Your task to perform on an android device: change the clock display to show seconds Image 0: 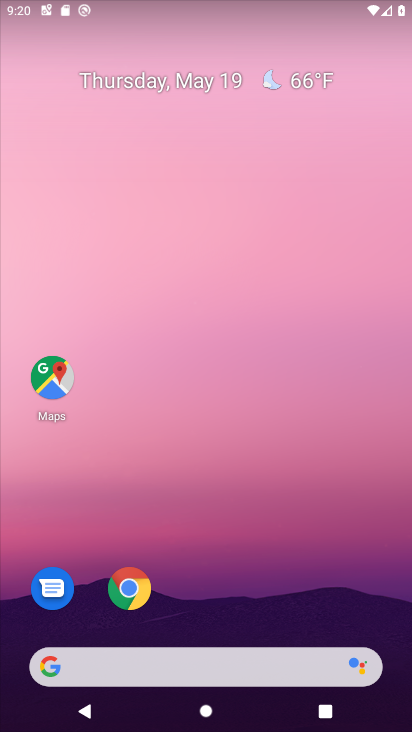
Step 0: drag from (378, 591) to (349, 315)
Your task to perform on an android device: change the clock display to show seconds Image 1: 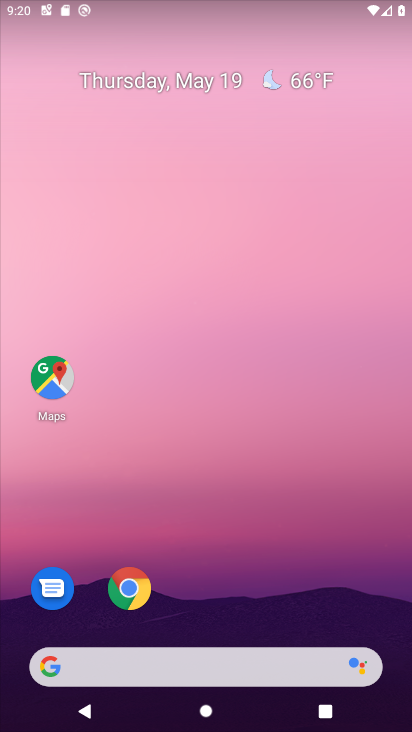
Step 1: drag from (384, 600) to (374, 81)
Your task to perform on an android device: change the clock display to show seconds Image 2: 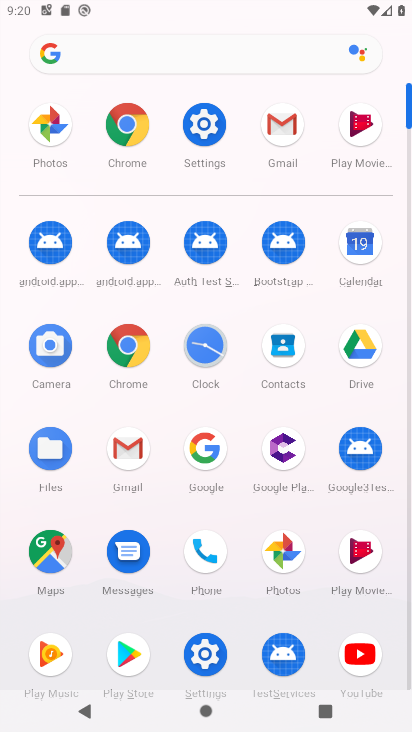
Step 2: click (195, 361)
Your task to perform on an android device: change the clock display to show seconds Image 3: 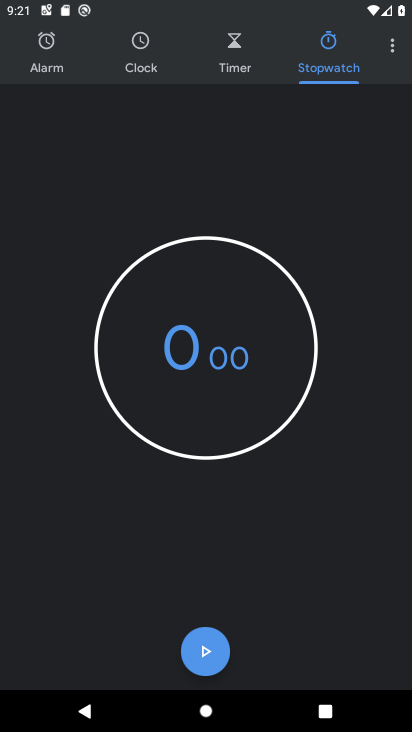
Step 3: click (396, 43)
Your task to perform on an android device: change the clock display to show seconds Image 4: 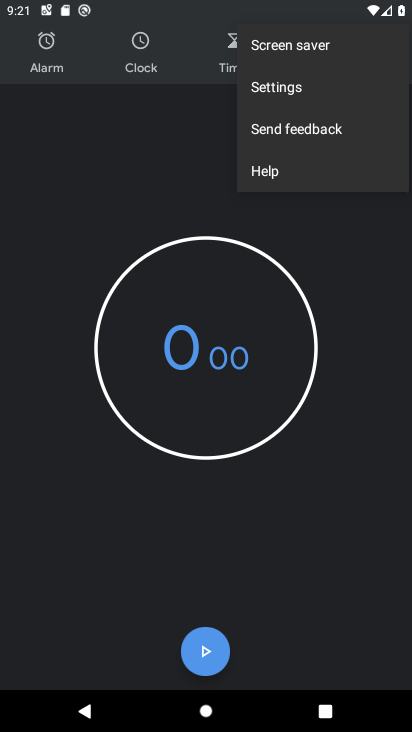
Step 4: click (262, 89)
Your task to perform on an android device: change the clock display to show seconds Image 5: 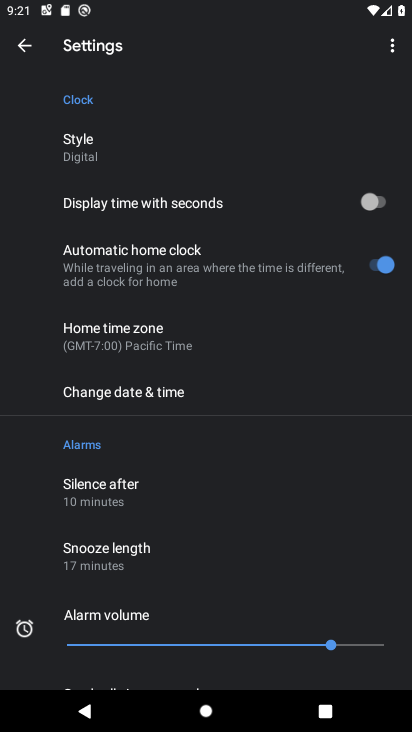
Step 5: drag from (311, 602) to (315, 426)
Your task to perform on an android device: change the clock display to show seconds Image 6: 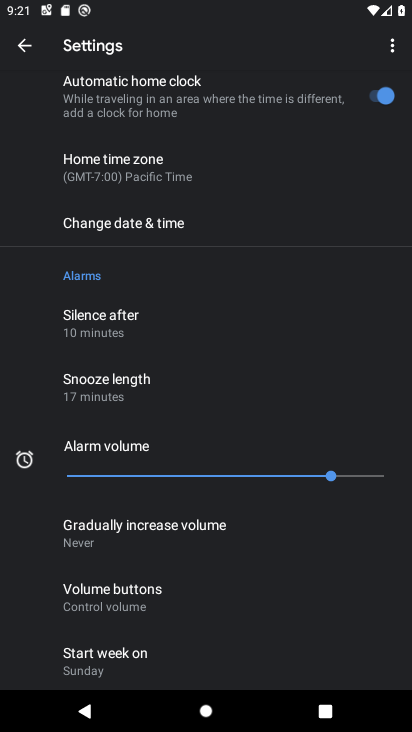
Step 6: drag from (334, 580) to (337, 419)
Your task to perform on an android device: change the clock display to show seconds Image 7: 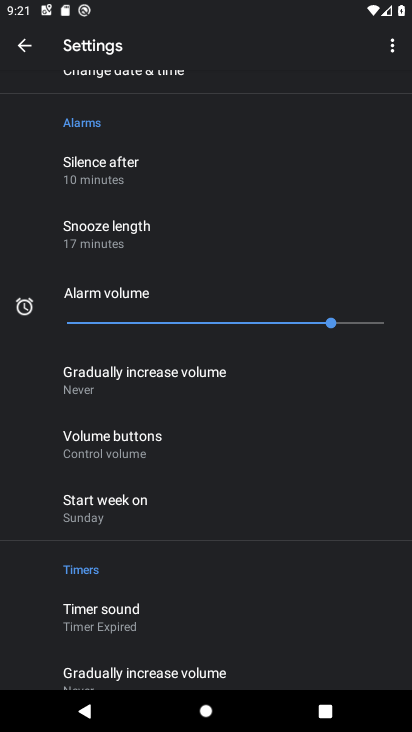
Step 7: drag from (338, 579) to (347, 459)
Your task to perform on an android device: change the clock display to show seconds Image 8: 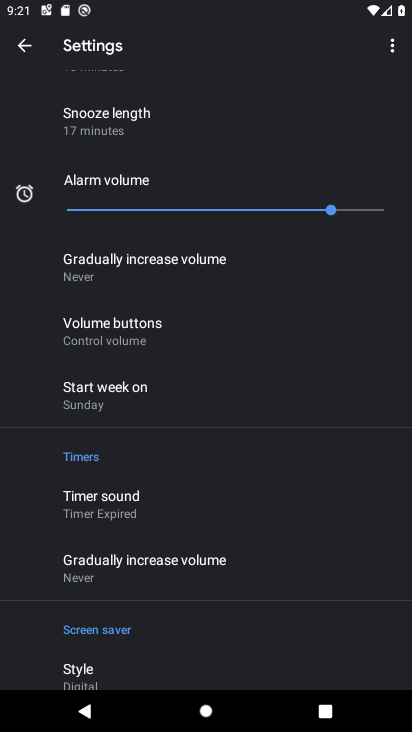
Step 8: drag from (351, 630) to (356, 502)
Your task to perform on an android device: change the clock display to show seconds Image 9: 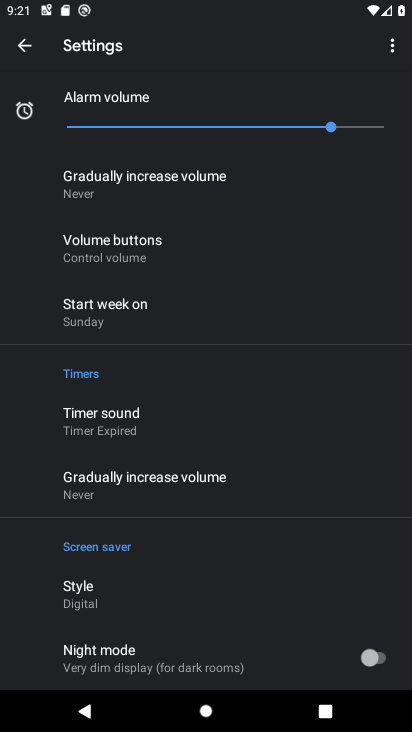
Step 9: drag from (341, 659) to (332, 526)
Your task to perform on an android device: change the clock display to show seconds Image 10: 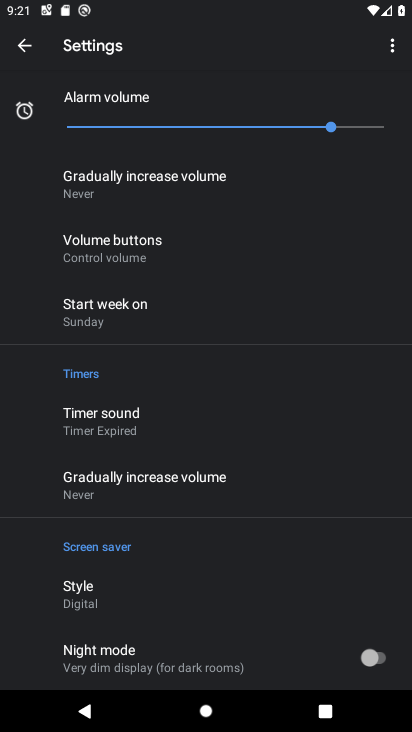
Step 10: drag from (329, 622) to (330, 459)
Your task to perform on an android device: change the clock display to show seconds Image 11: 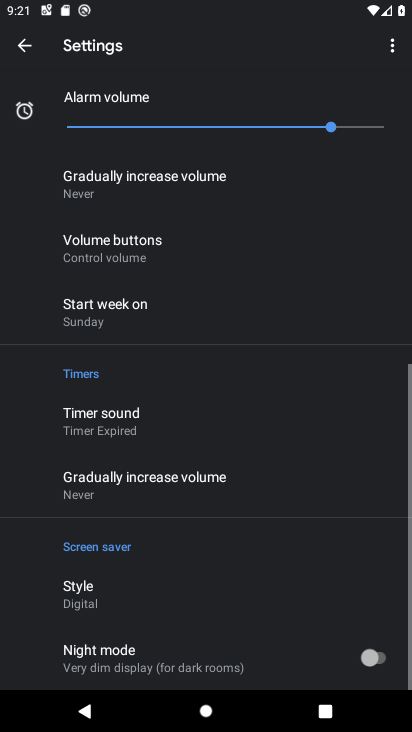
Step 11: drag from (329, 382) to (323, 510)
Your task to perform on an android device: change the clock display to show seconds Image 12: 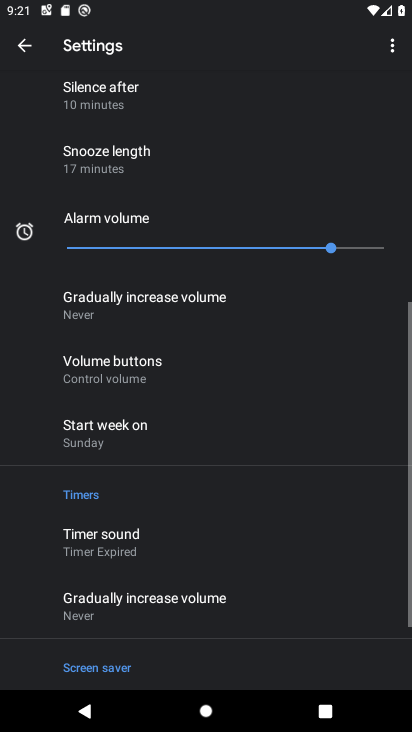
Step 12: drag from (320, 357) to (313, 507)
Your task to perform on an android device: change the clock display to show seconds Image 13: 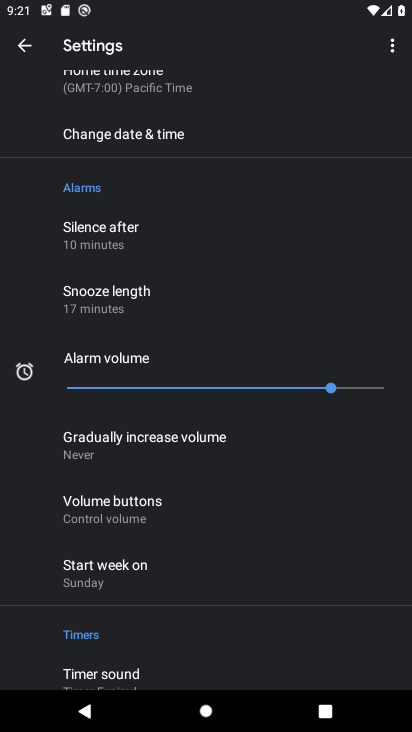
Step 13: drag from (331, 340) to (330, 445)
Your task to perform on an android device: change the clock display to show seconds Image 14: 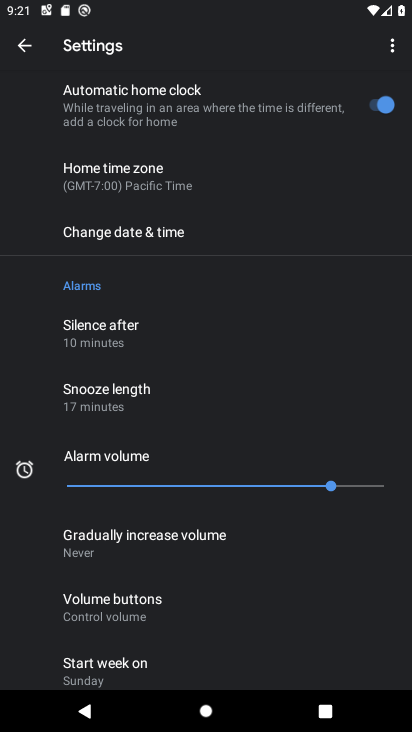
Step 14: drag from (329, 322) to (333, 507)
Your task to perform on an android device: change the clock display to show seconds Image 15: 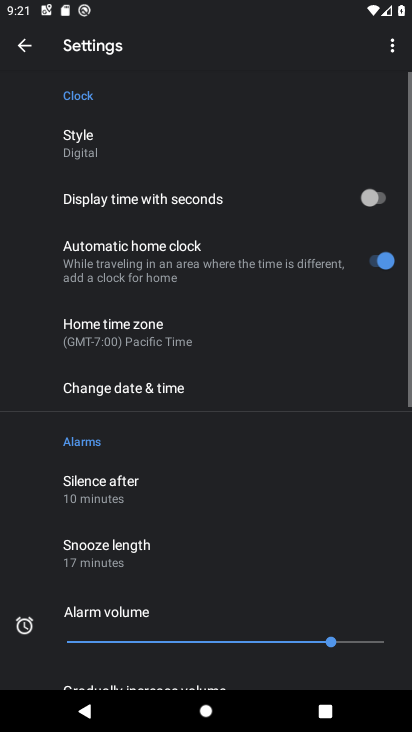
Step 15: drag from (335, 312) to (330, 445)
Your task to perform on an android device: change the clock display to show seconds Image 16: 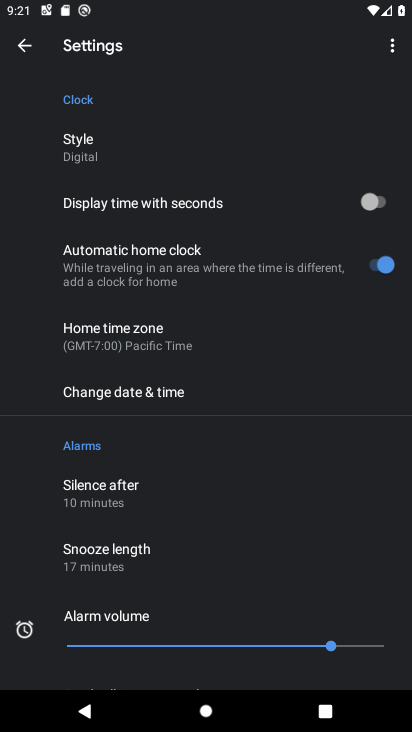
Step 16: click (358, 200)
Your task to perform on an android device: change the clock display to show seconds Image 17: 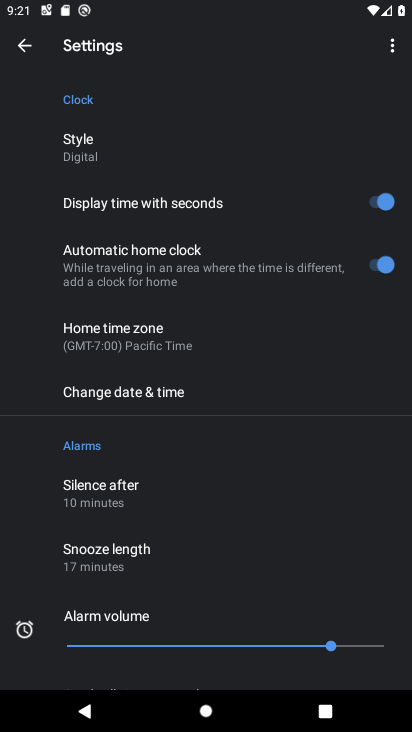
Step 17: task complete